Your task to perform on an android device: Open privacy settings Image 0: 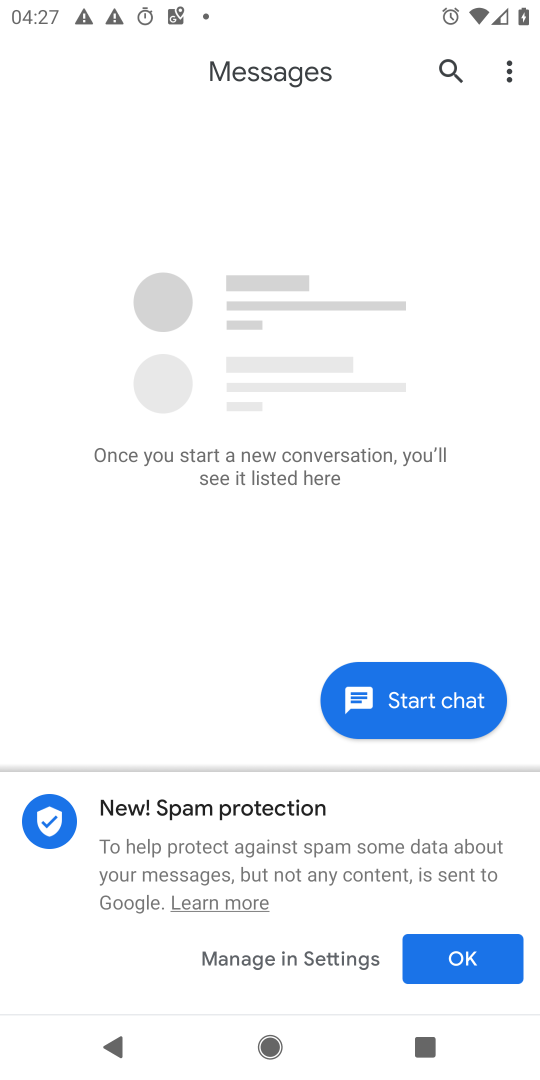
Step 0: press home button
Your task to perform on an android device: Open privacy settings Image 1: 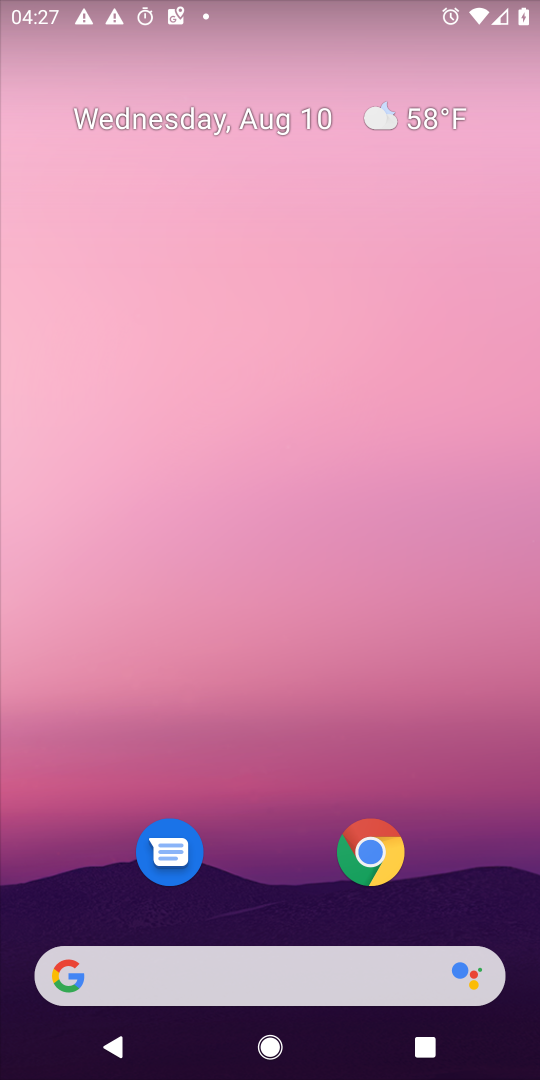
Step 1: drag from (258, 848) to (213, 103)
Your task to perform on an android device: Open privacy settings Image 2: 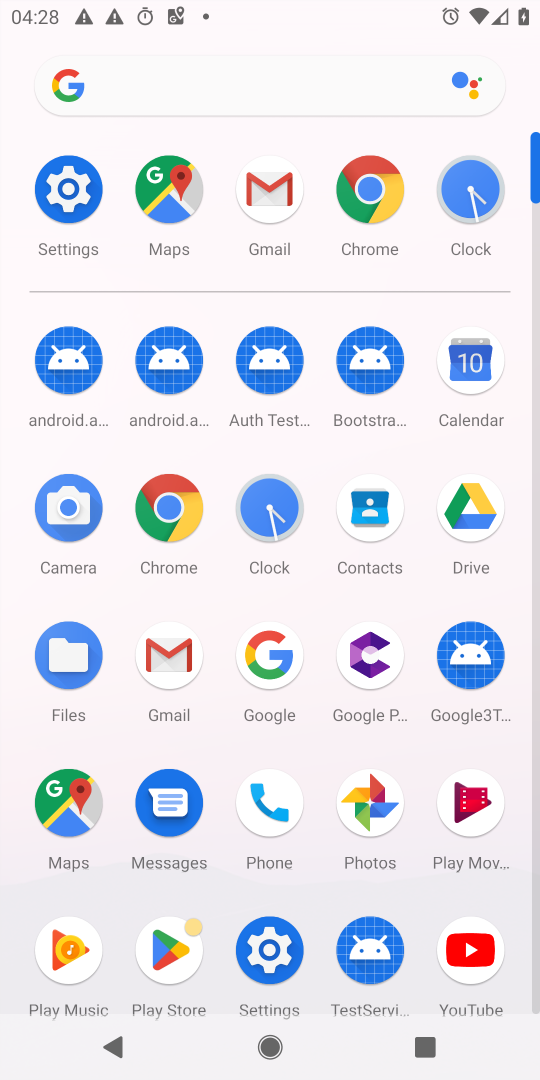
Step 2: click (258, 952)
Your task to perform on an android device: Open privacy settings Image 3: 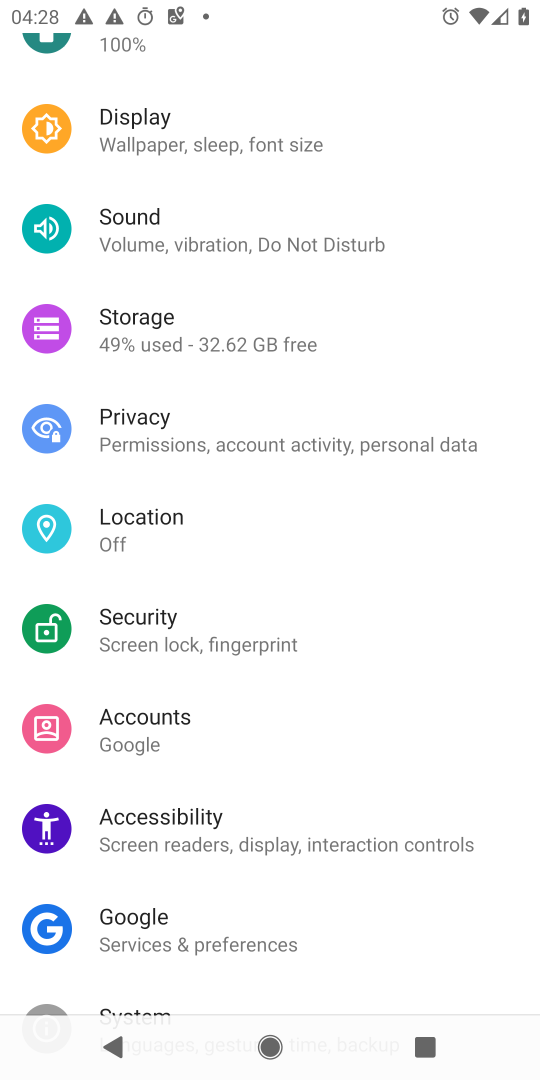
Step 3: click (144, 423)
Your task to perform on an android device: Open privacy settings Image 4: 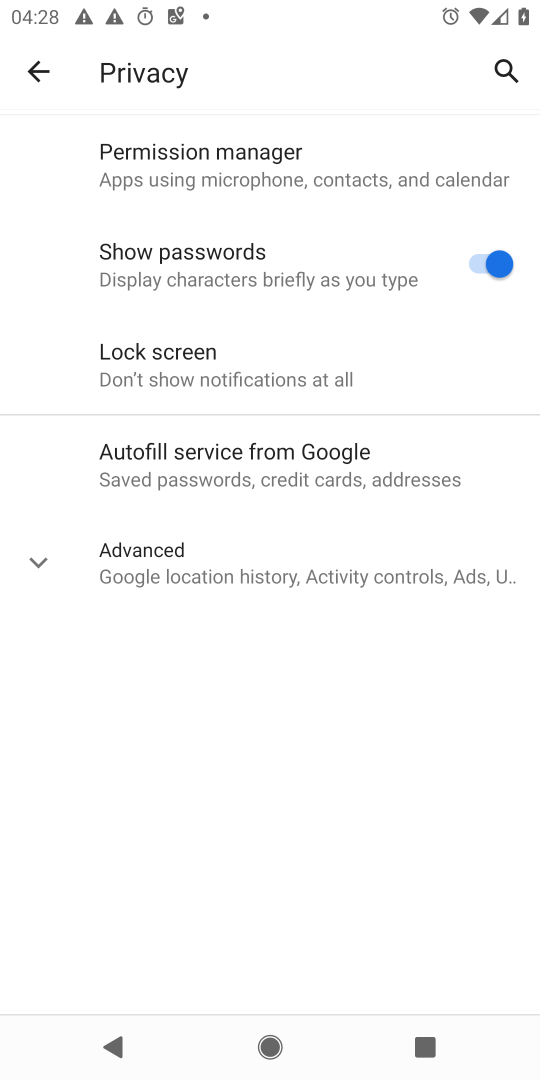
Step 4: task complete